Your task to perform on an android device: change notifications settings Image 0: 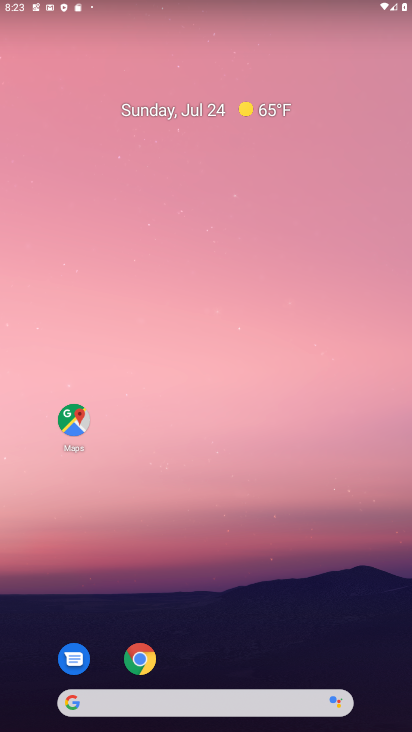
Step 0: drag from (251, 651) to (251, 49)
Your task to perform on an android device: change notifications settings Image 1: 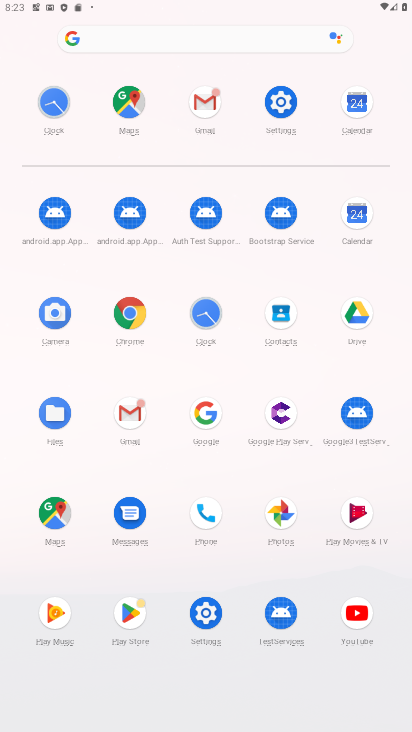
Step 1: click (275, 99)
Your task to perform on an android device: change notifications settings Image 2: 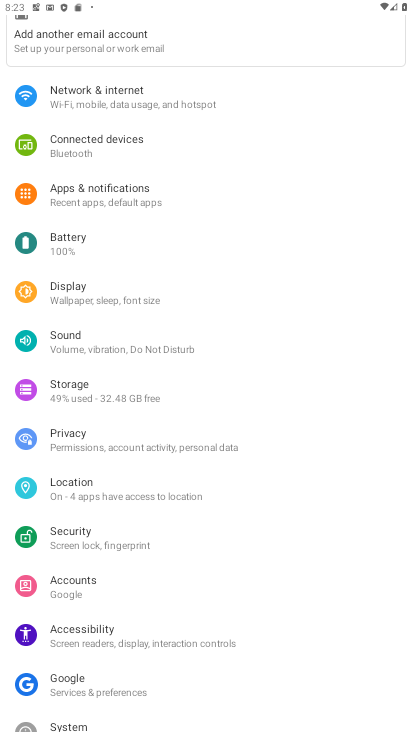
Step 2: click (93, 201)
Your task to perform on an android device: change notifications settings Image 3: 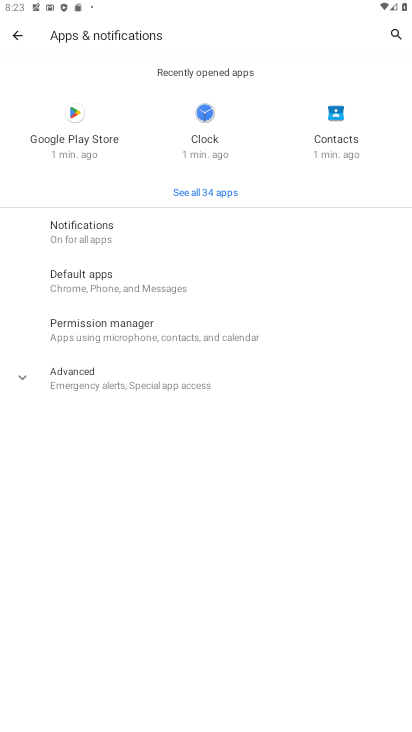
Step 3: click (79, 235)
Your task to perform on an android device: change notifications settings Image 4: 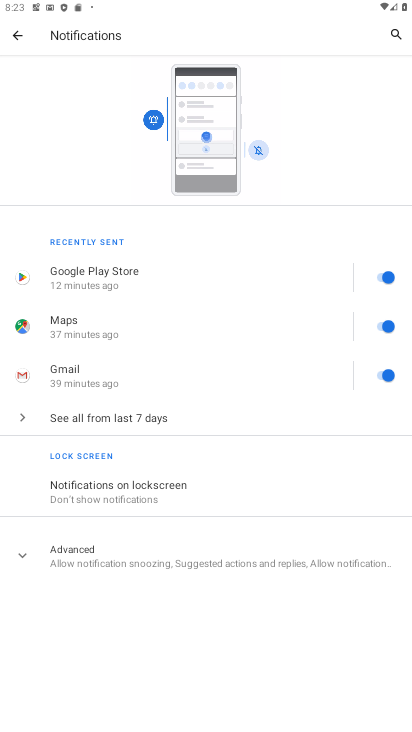
Step 4: click (110, 424)
Your task to perform on an android device: change notifications settings Image 5: 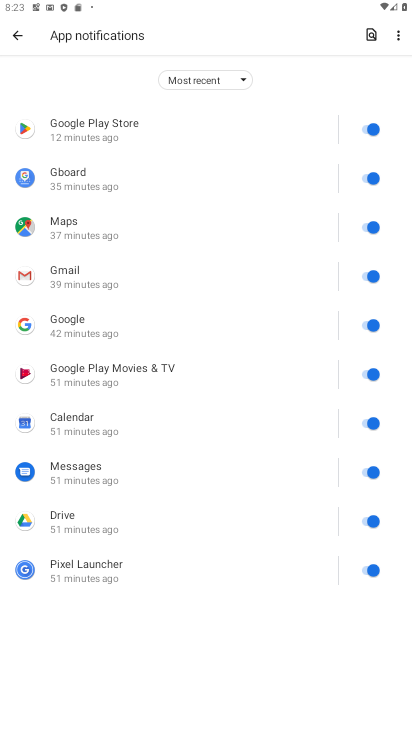
Step 5: click (243, 78)
Your task to perform on an android device: change notifications settings Image 6: 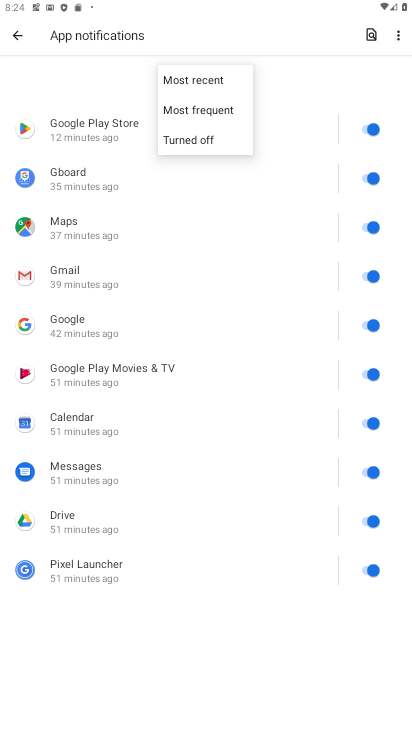
Step 6: click (194, 144)
Your task to perform on an android device: change notifications settings Image 7: 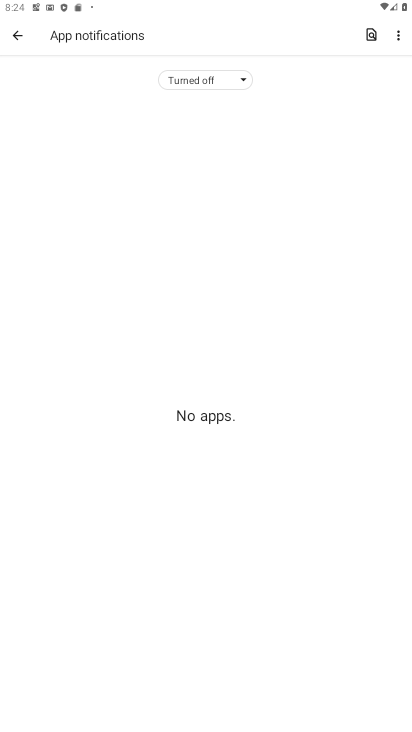
Step 7: task complete